Your task to perform on an android device: Search for a new phone on Amazon. Image 0: 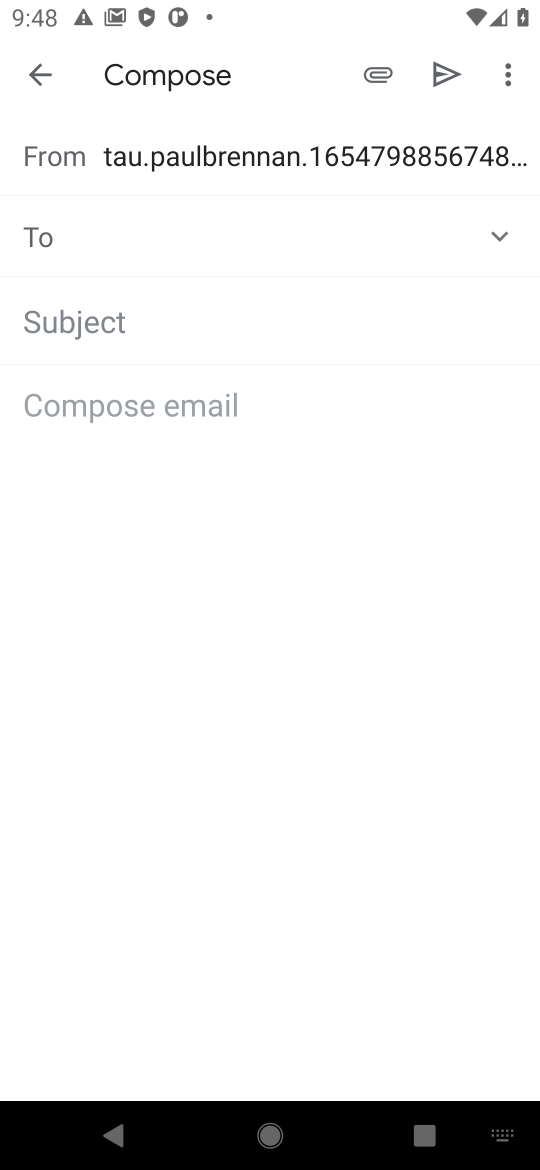
Step 0: press home button
Your task to perform on an android device: Search for a new phone on Amazon. Image 1: 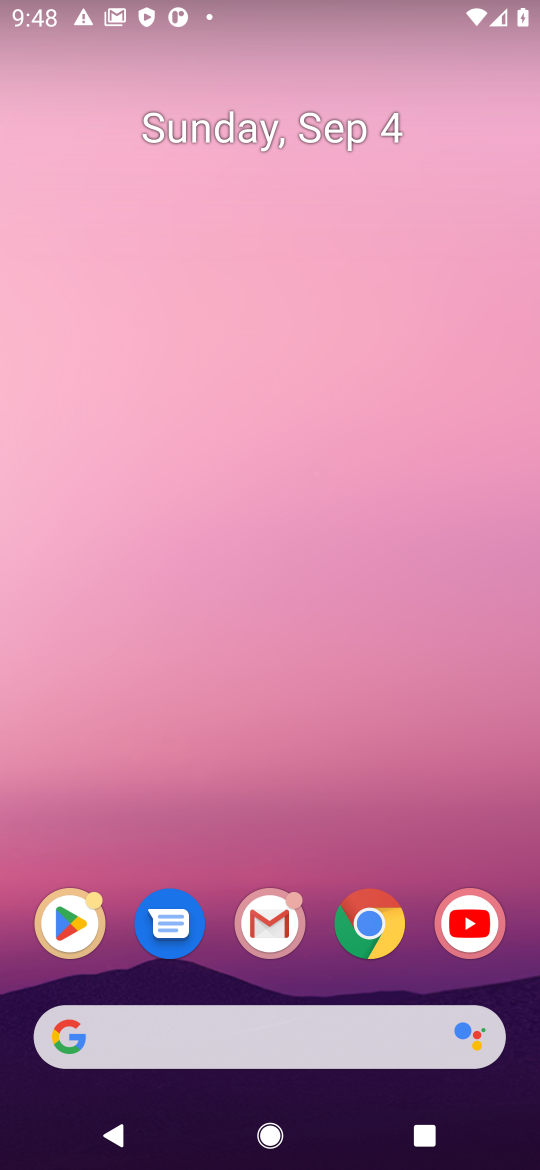
Step 1: click (326, 1047)
Your task to perform on an android device: Search for a new phone on Amazon. Image 2: 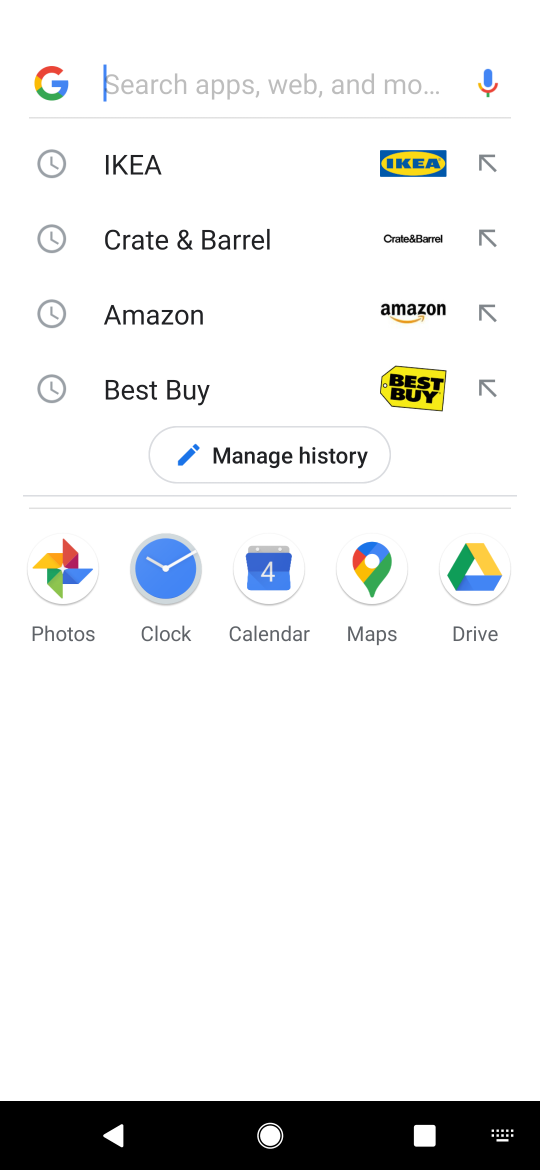
Step 2: press enter
Your task to perform on an android device: Search for a new phone on Amazon. Image 3: 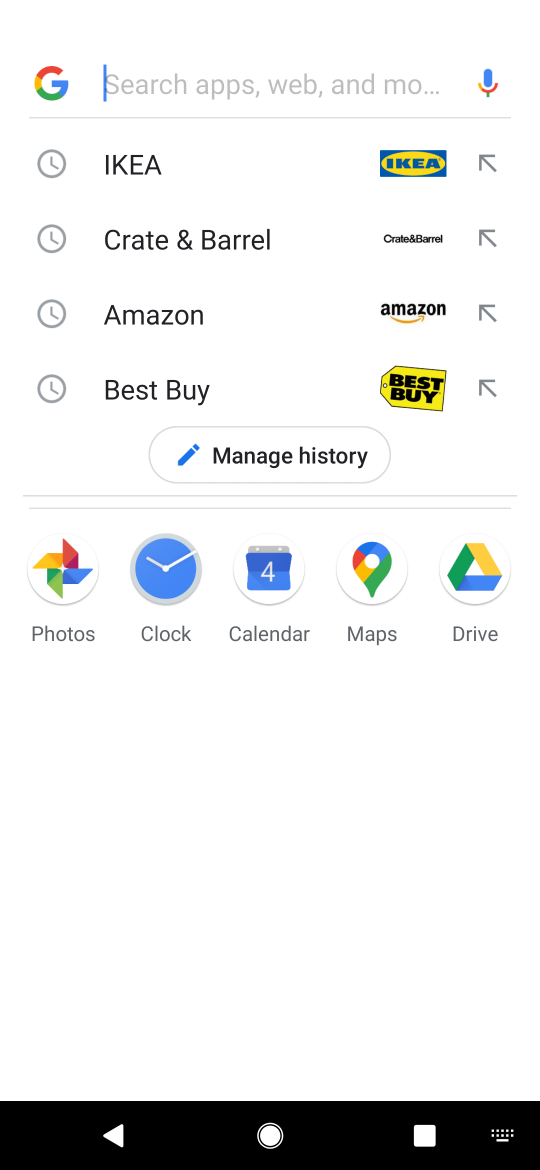
Step 3: type "amazon"
Your task to perform on an android device: Search for a new phone on Amazon. Image 4: 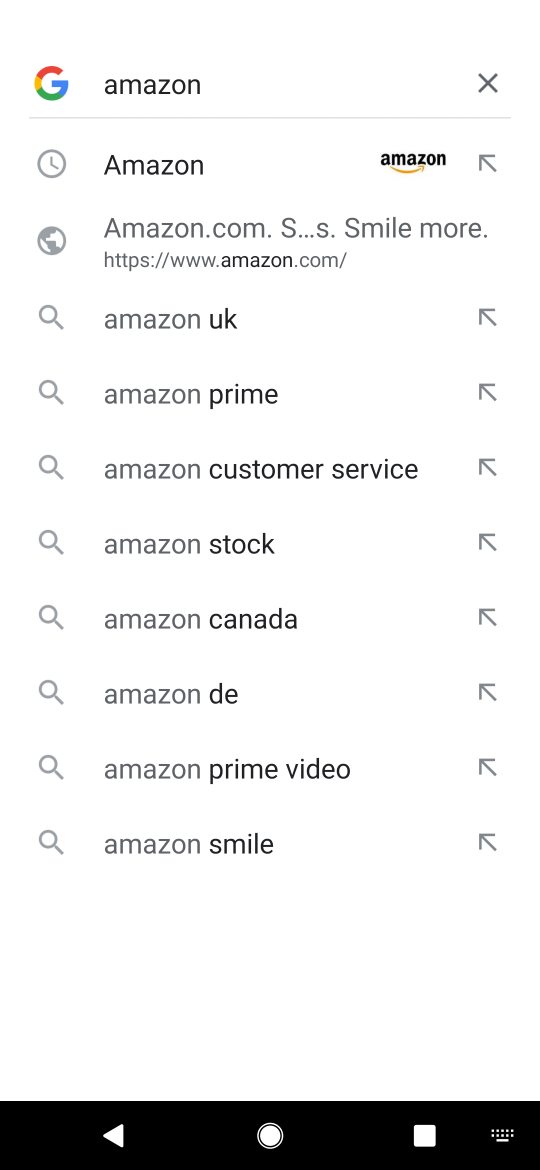
Step 4: click (168, 160)
Your task to perform on an android device: Search for a new phone on Amazon. Image 5: 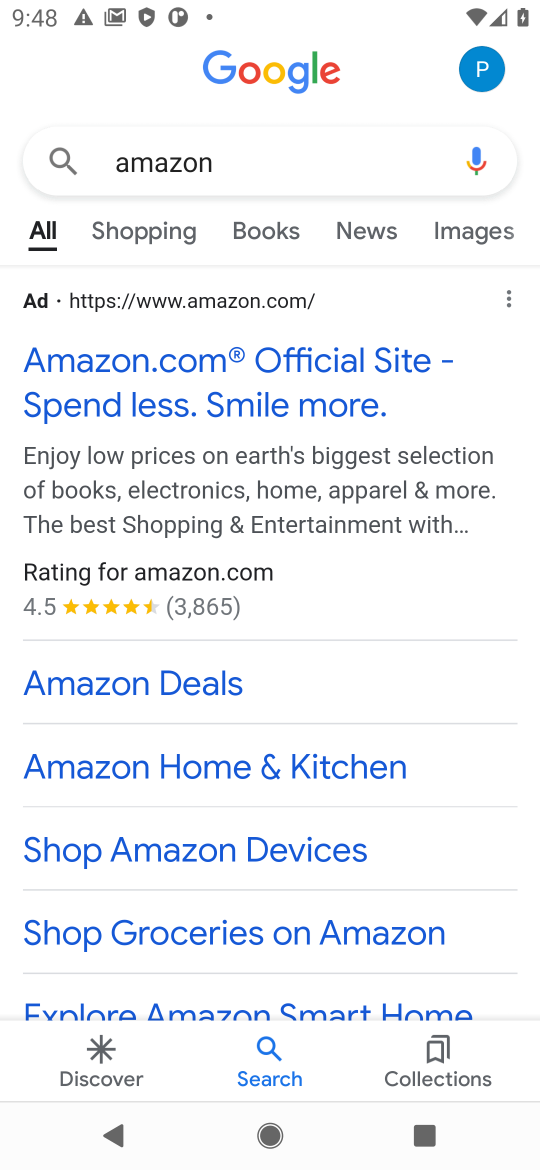
Step 5: click (260, 357)
Your task to perform on an android device: Search for a new phone on Amazon. Image 6: 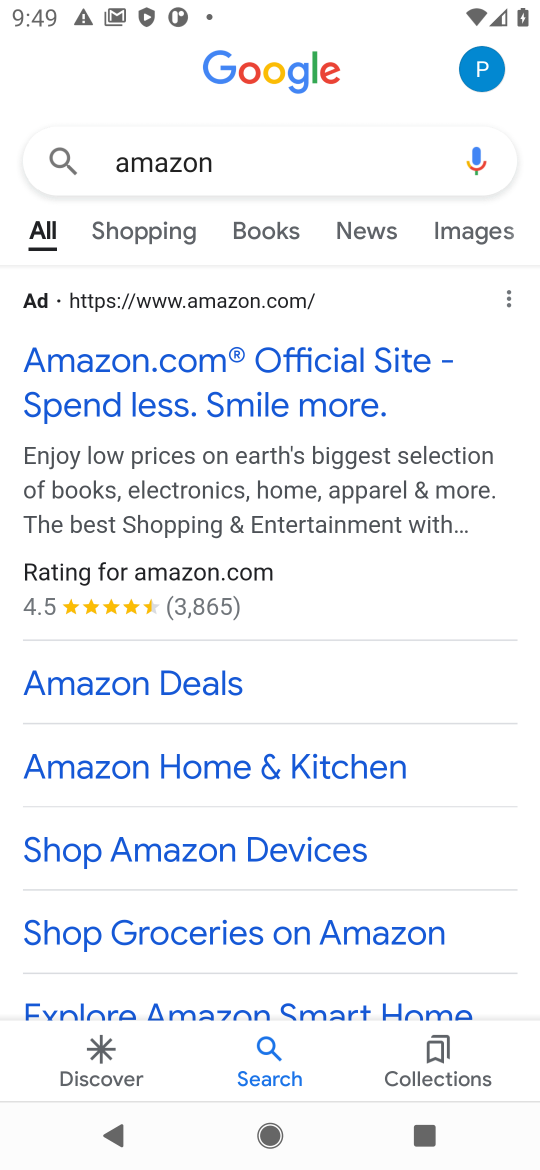
Step 6: click (331, 382)
Your task to perform on an android device: Search for a new phone on Amazon. Image 7: 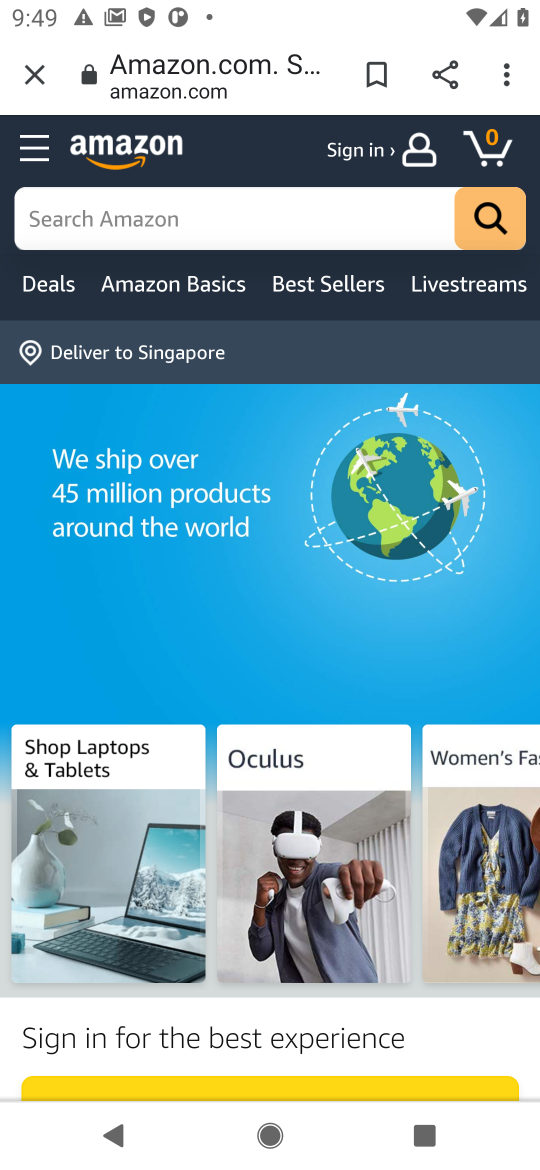
Step 7: click (205, 212)
Your task to perform on an android device: Search for a new phone on Amazon. Image 8: 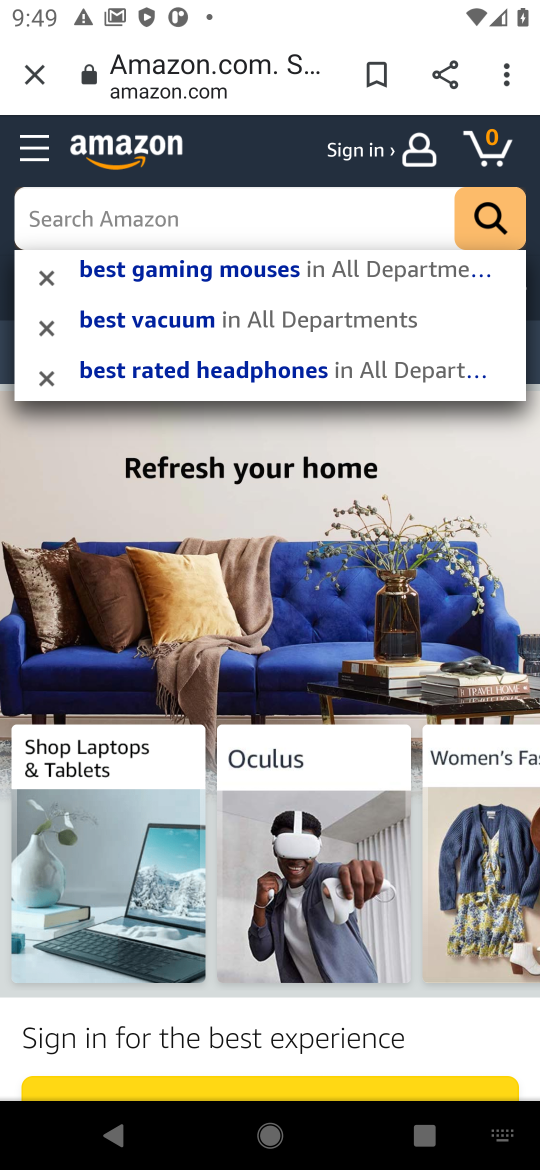
Step 8: type "ne phone"
Your task to perform on an android device: Search for a new phone on Amazon. Image 9: 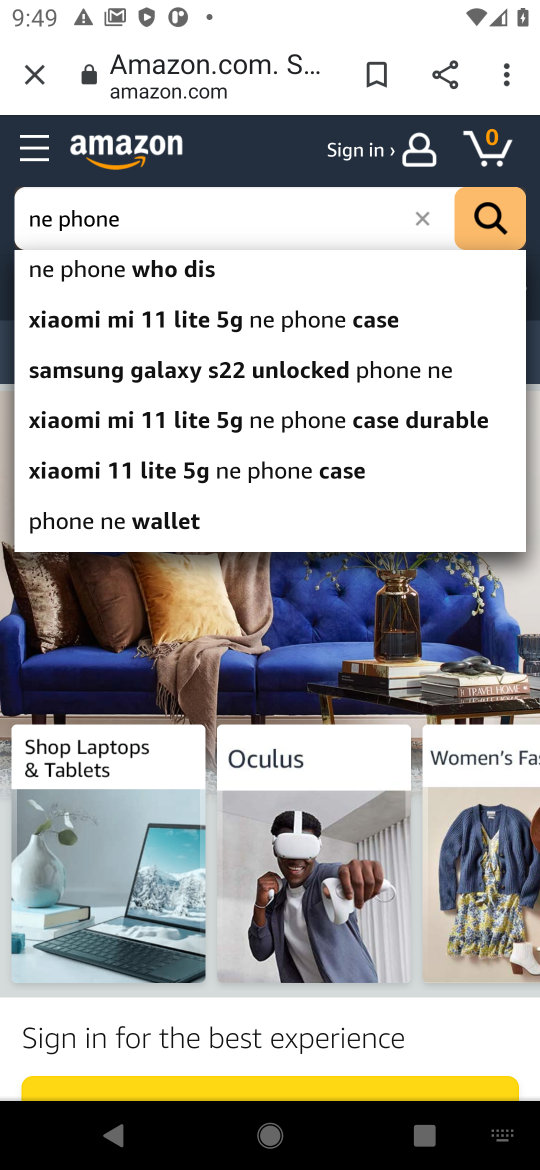
Step 9: click (489, 226)
Your task to perform on an android device: Search for a new phone on Amazon. Image 10: 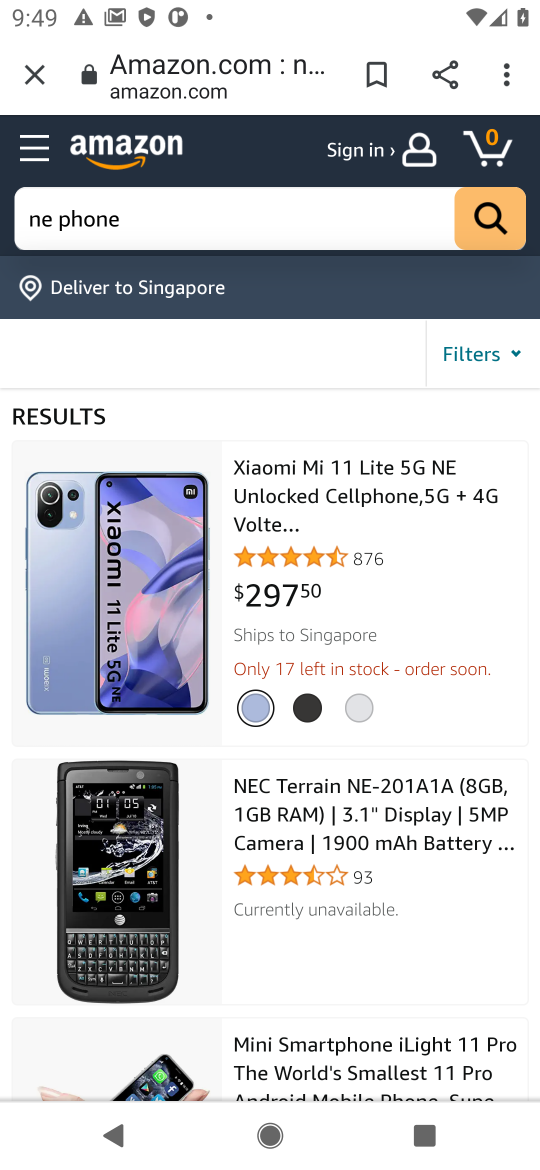
Step 10: task complete